Your task to perform on an android device: change text size in settings app Image 0: 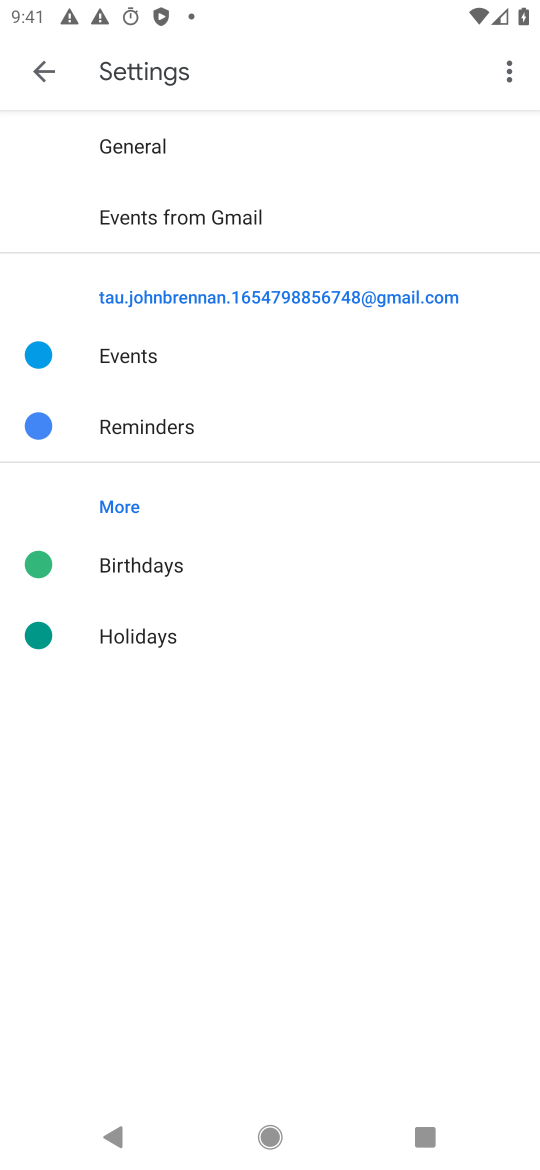
Step 0: press back button
Your task to perform on an android device: change text size in settings app Image 1: 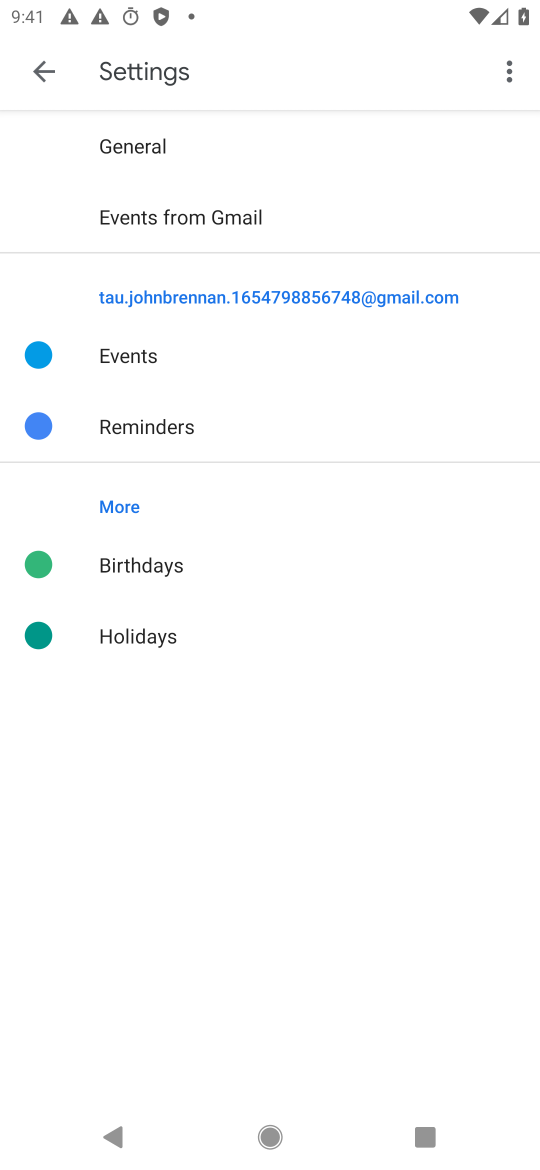
Step 1: press home button
Your task to perform on an android device: change text size in settings app Image 2: 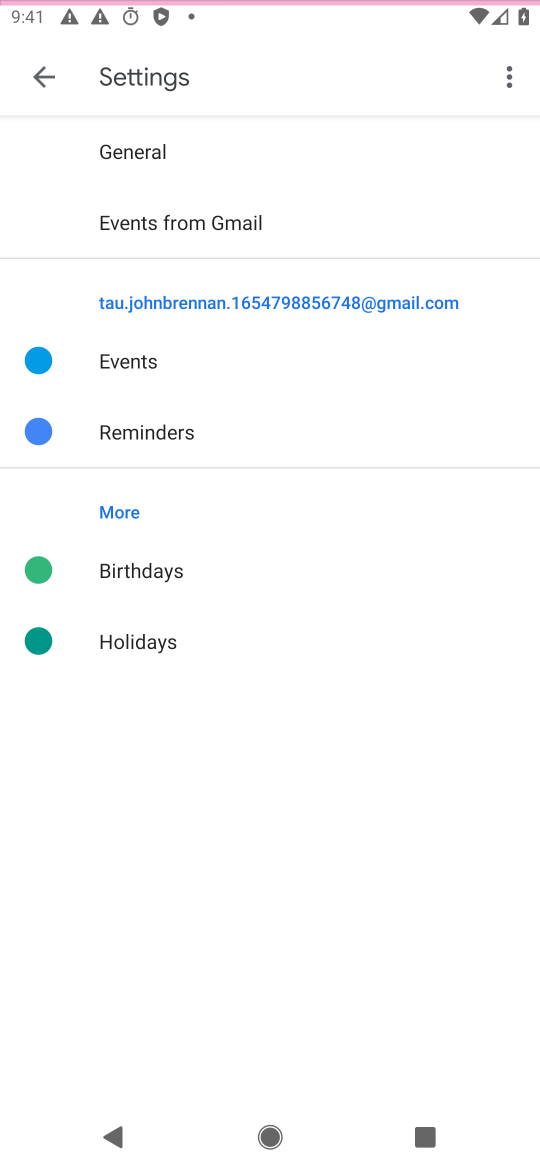
Step 2: drag from (195, 1068) to (348, 246)
Your task to perform on an android device: change text size in settings app Image 3: 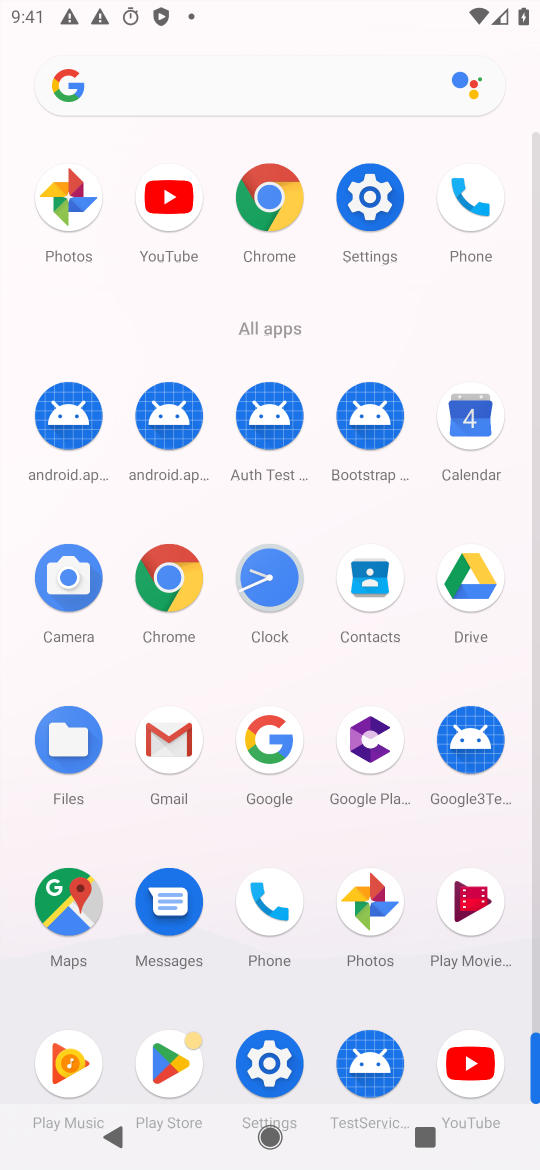
Step 3: click (350, 201)
Your task to perform on an android device: change text size in settings app Image 4: 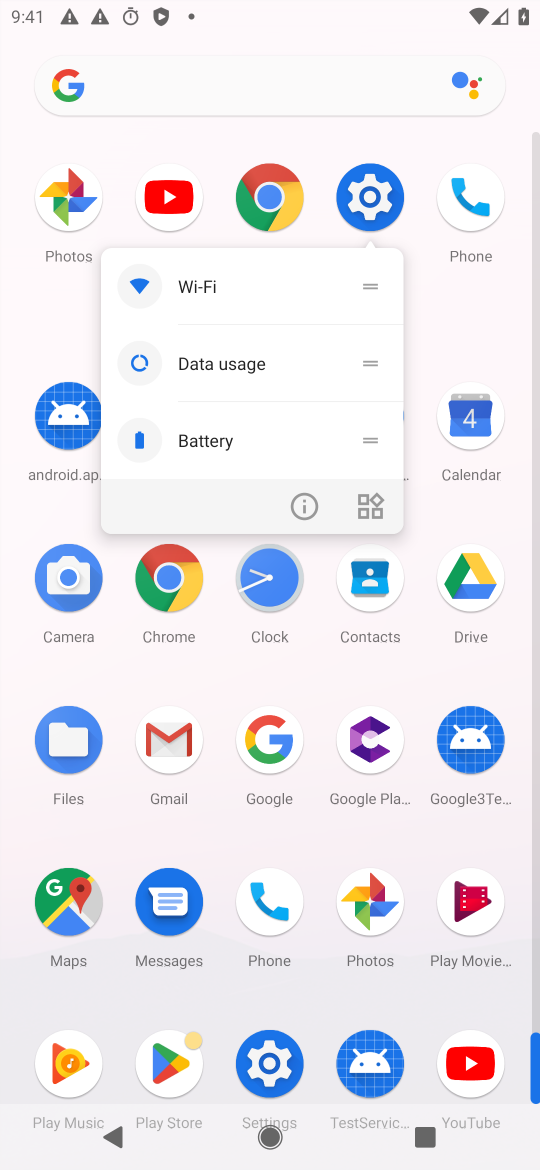
Step 4: click (314, 498)
Your task to perform on an android device: change text size in settings app Image 5: 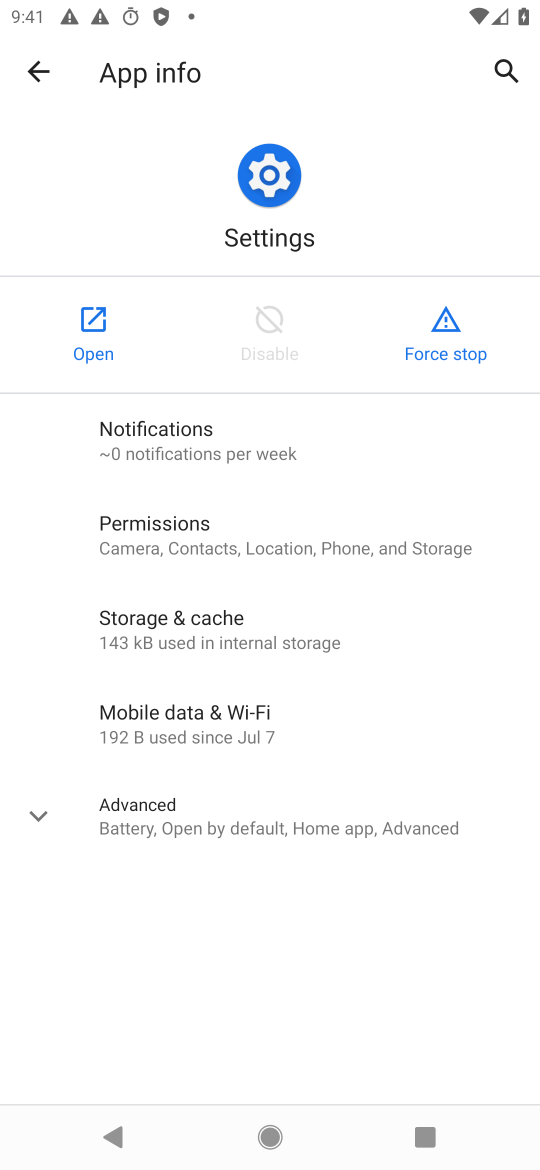
Step 5: click (105, 309)
Your task to perform on an android device: change text size in settings app Image 6: 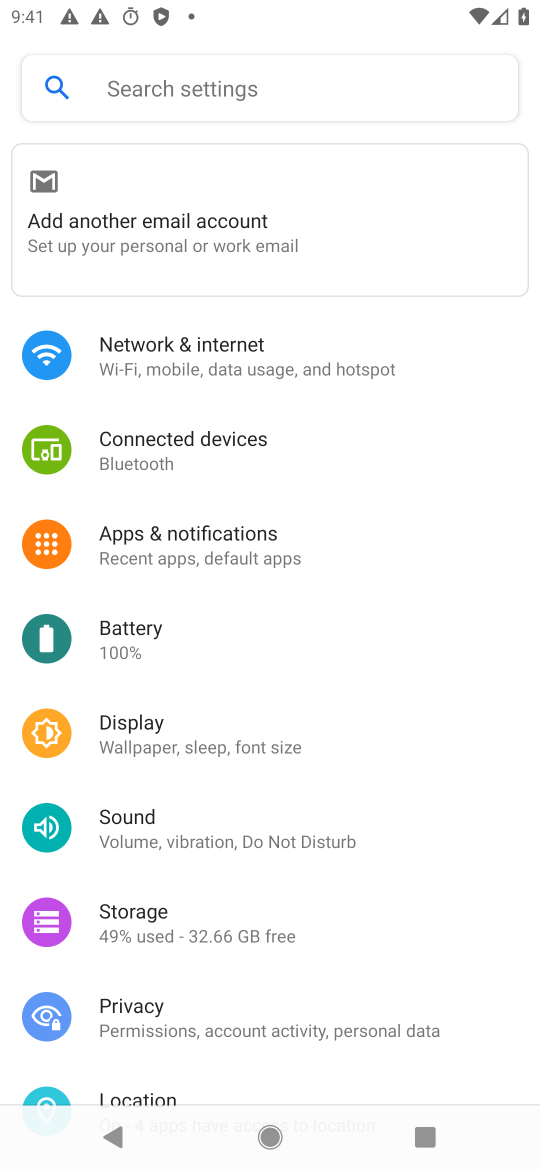
Step 6: click (184, 747)
Your task to perform on an android device: change text size in settings app Image 7: 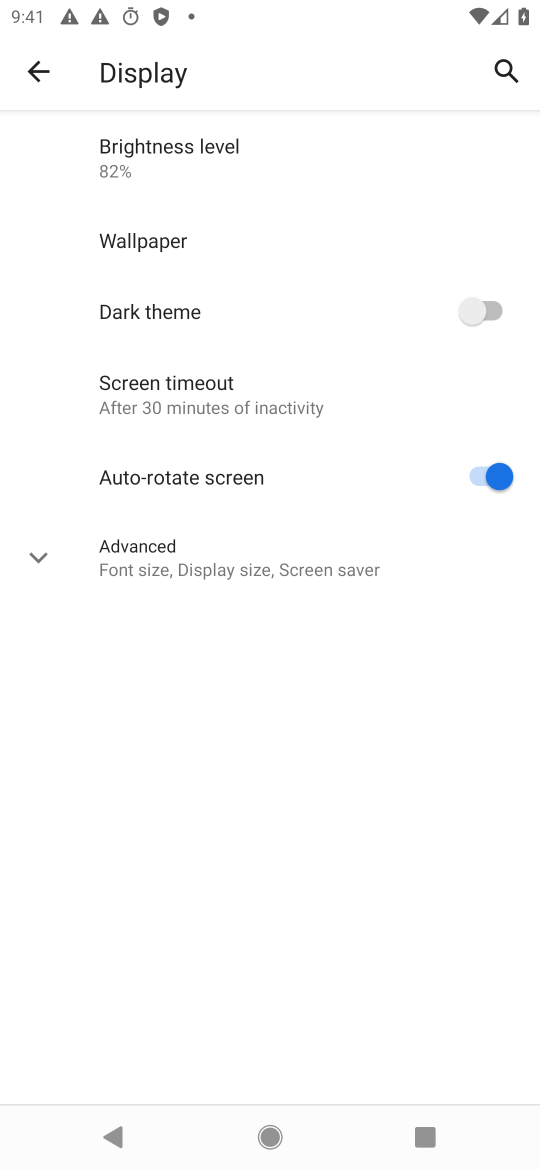
Step 7: click (164, 534)
Your task to perform on an android device: change text size in settings app Image 8: 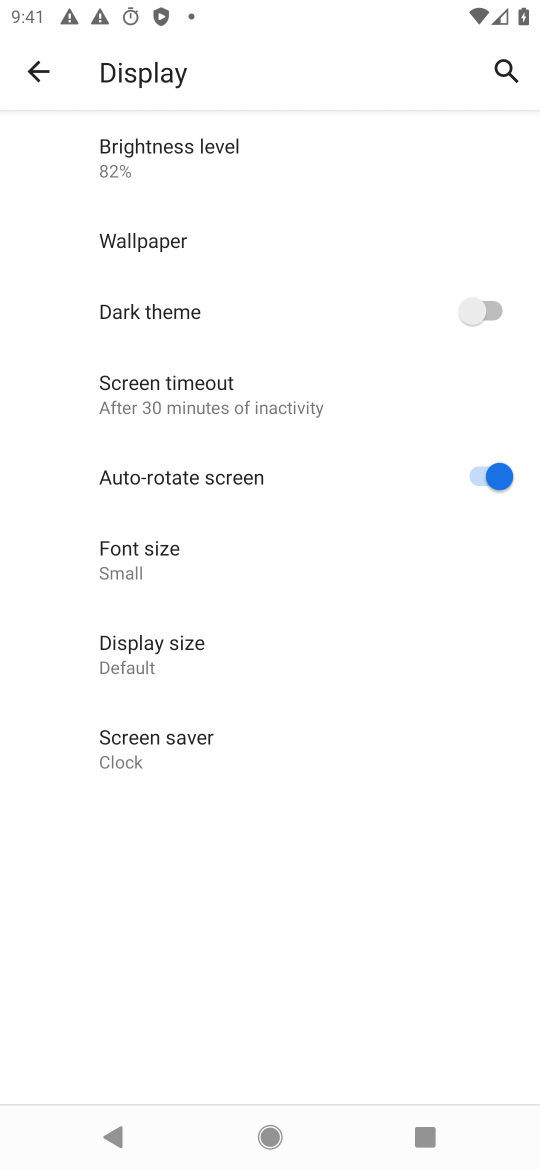
Step 8: drag from (282, 706) to (327, 296)
Your task to perform on an android device: change text size in settings app Image 9: 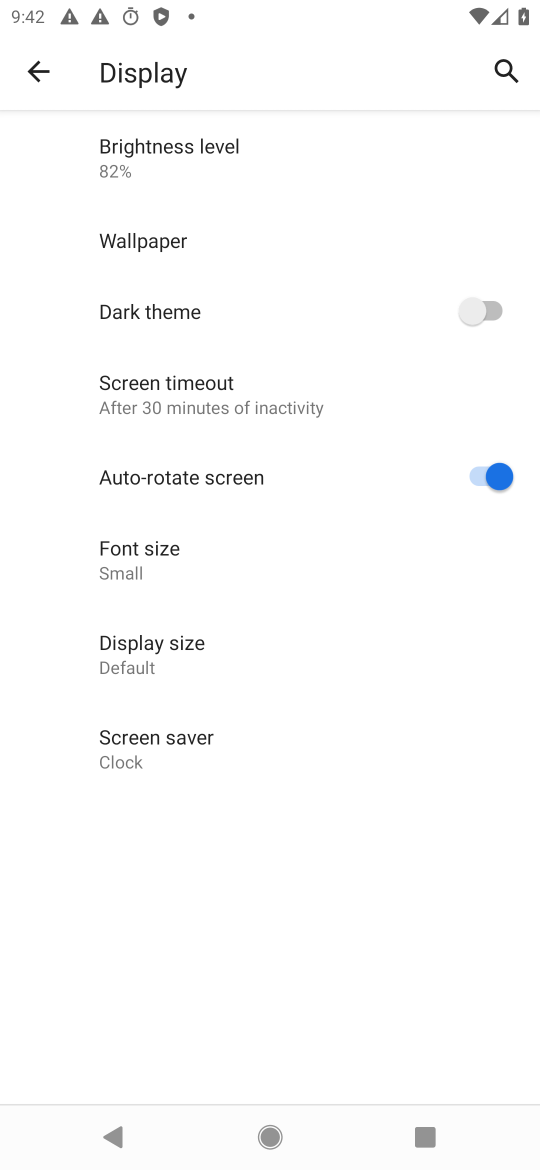
Step 9: click (188, 570)
Your task to perform on an android device: change text size in settings app Image 10: 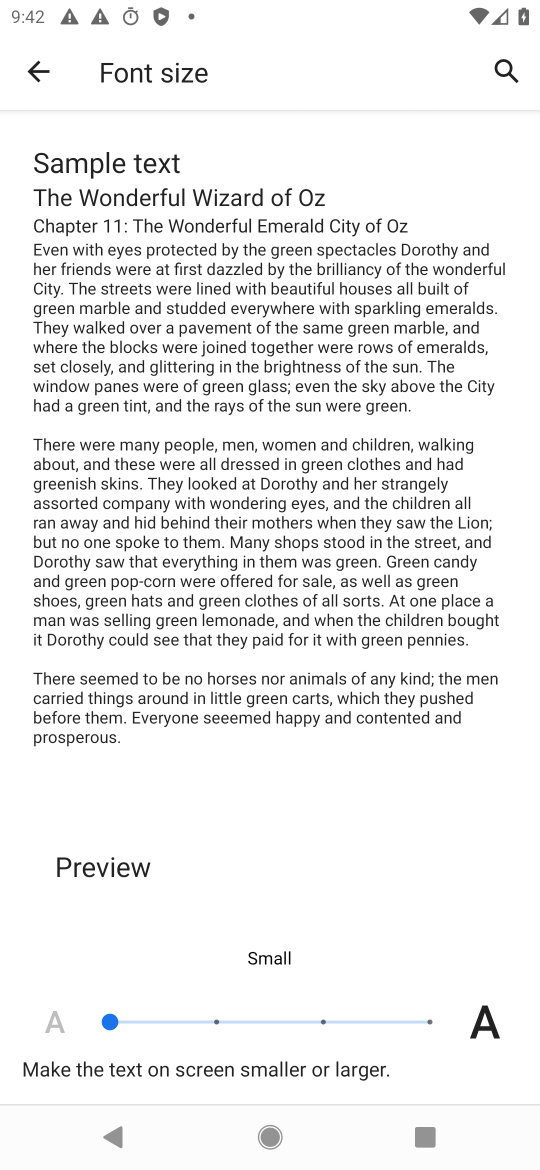
Step 10: click (213, 1021)
Your task to perform on an android device: change text size in settings app Image 11: 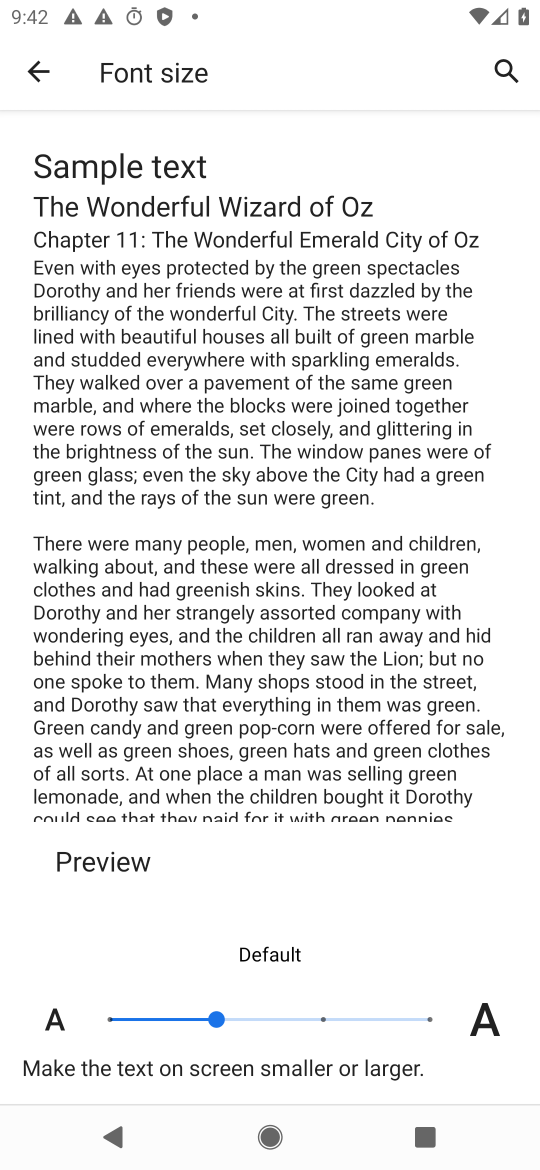
Step 11: drag from (248, 920) to (281, 411)
Your task to perform on an android device: change text size in settings app Image 12: 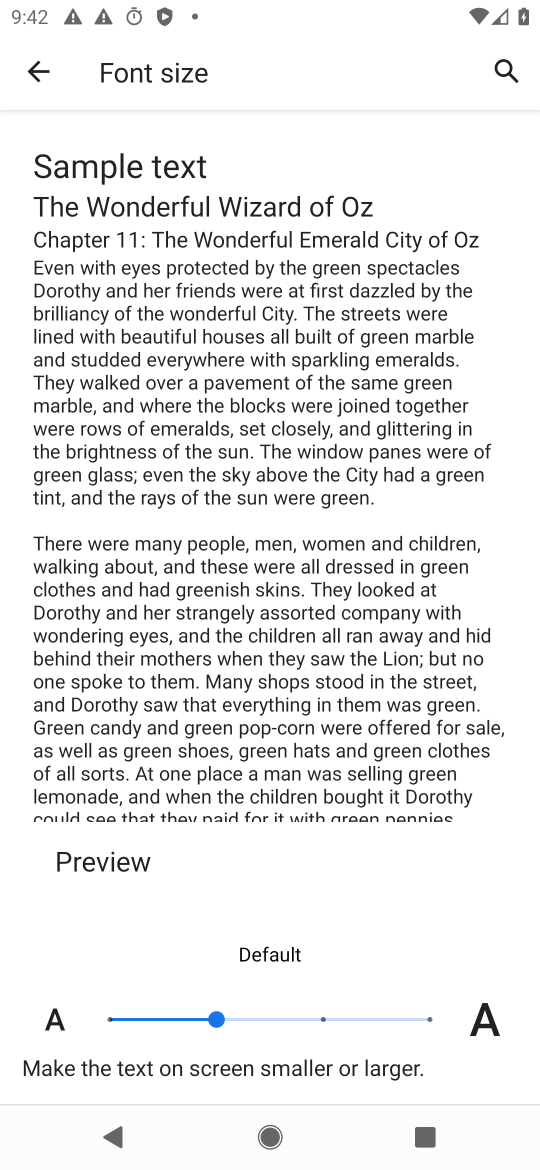
Step 12: drag from (307, 672) to (336, 299)
Your task to perform on an android device: change text size in settings app Image 13: 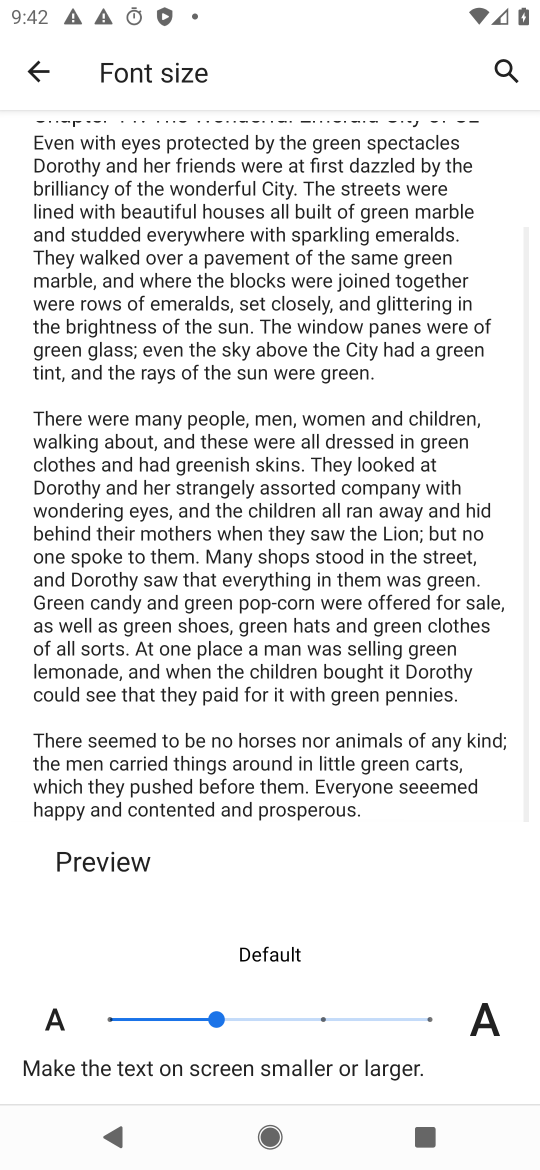
Step 13: drag from (287, 638) to (374, 298)
Your task to perform on an android device: change text size in settings app Image 14: 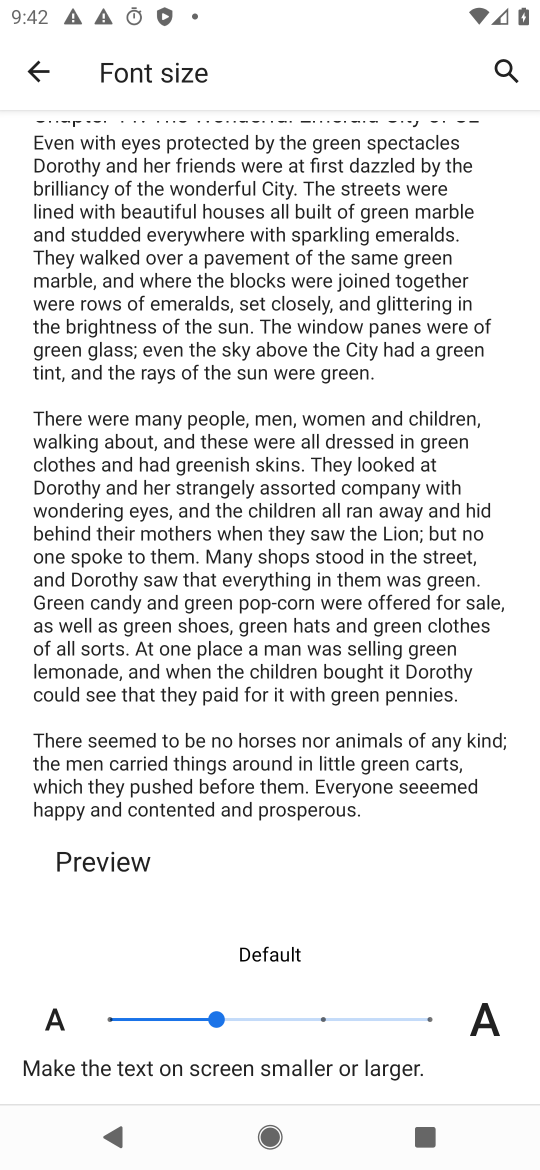
Step 14: drag from (247, 613) to (347, 290)
Your task to perform on an android device: change text size in settings app Image 15: 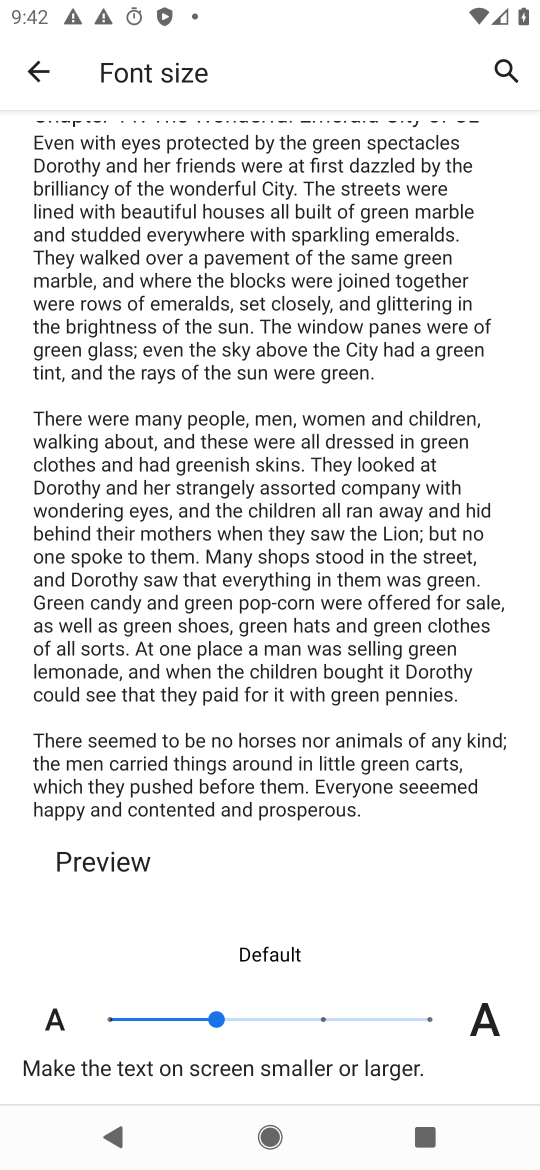
Step 15: click (323, 1017)
Your task to perform on an android device: change text size in settings app Image 16: 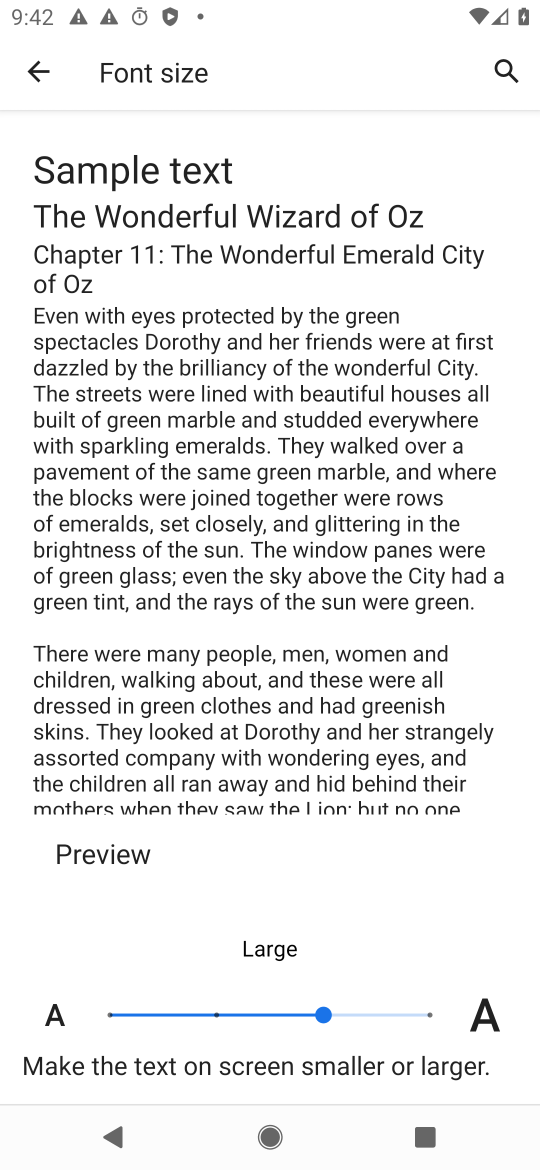
Step 16: task complete